Your task to perform on an android device: Search for Italian restaurants on Maps Image 0: 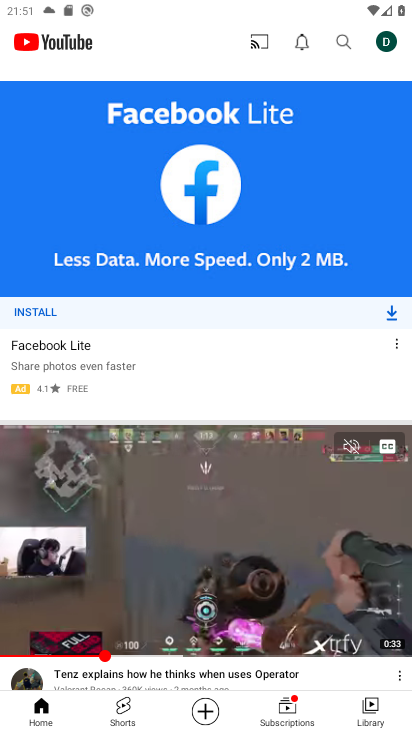
Step 0: press home button
Your task to perform on an android device: Search for Italian restaurants on Maps Image 1: 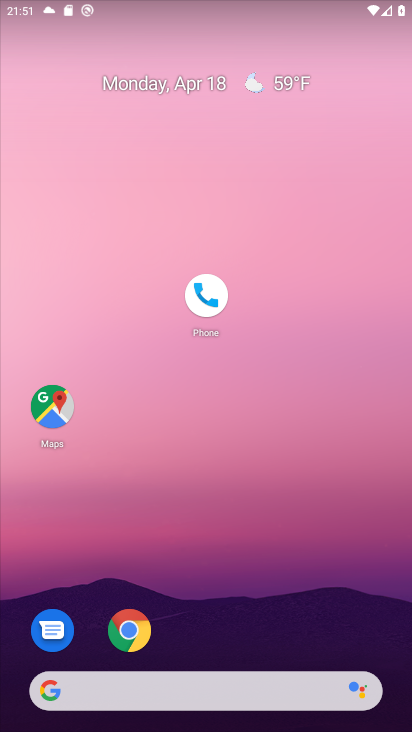
Step 1: drag from (281, 622) to (363, 49)
Your task to perform on an android device: Search for Italian restaurants on Maps Image 2: 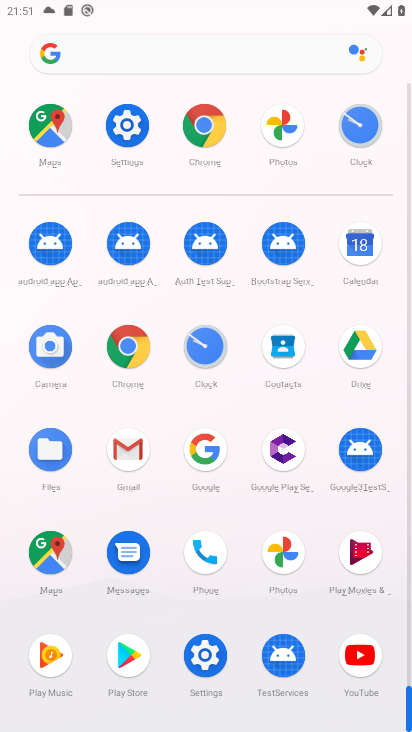
Step 2: click (39, 549)
Your task to perform on an android device: Search for Italian restaurants on Maps Image 3: 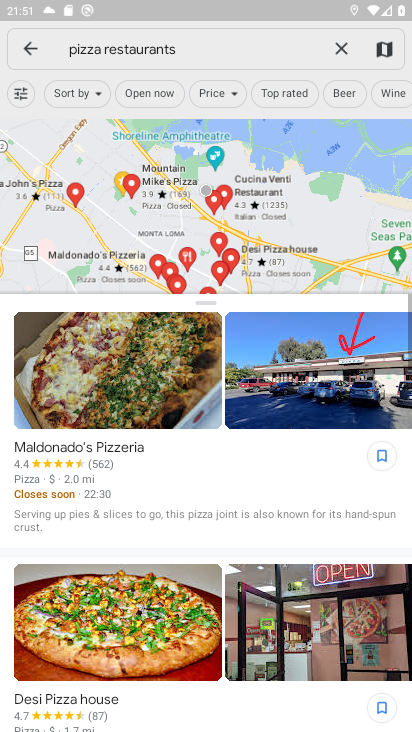
Step 3: click (197, 48)
Your task to perform on an android device: Search for Italian restaurants on Maps Image 4: 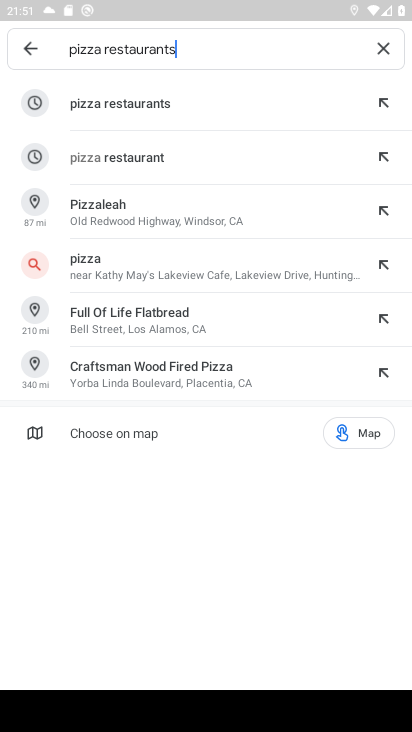
Step 4: click (378, 44)
Your task to perform on an android device: Search for Italian restaurants on Maps Image 5: 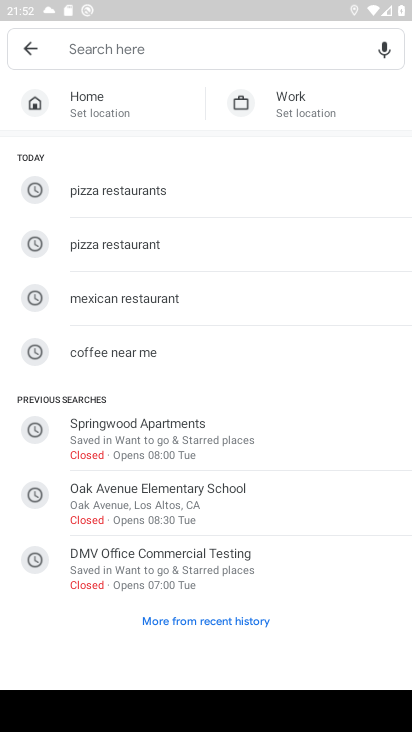
Step 5: type "italian restaurants"
Your task to perform on an android device: Search for Italian restaurants on Maps Image 6: 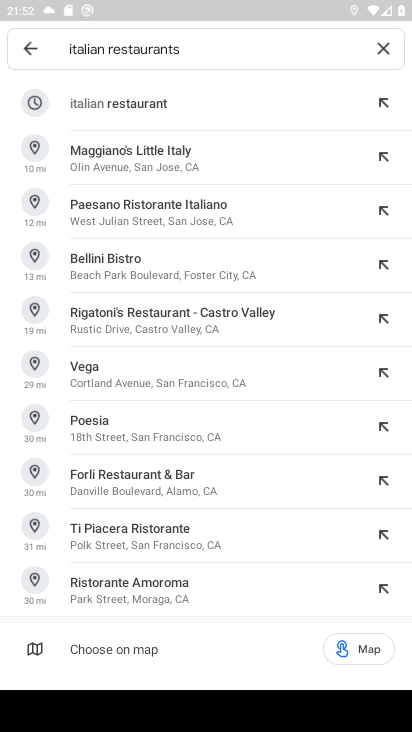
Step 6: press enter
Your task to perform on an android device: Search for Italian restaurants on Maps Image 7: 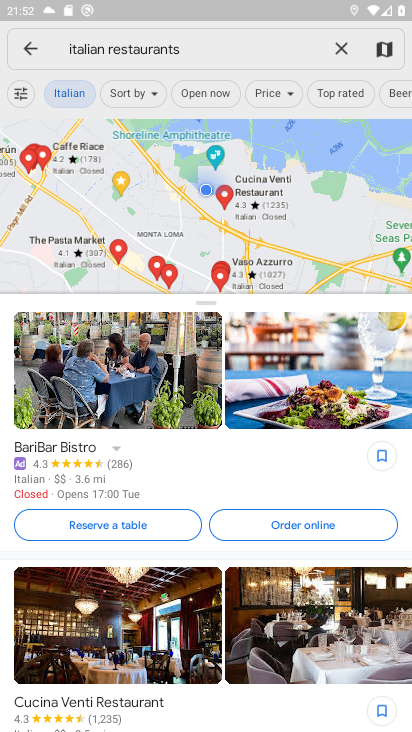
Step 7: task complete